Your task to perform on an android device: What is the news today? Image 0: 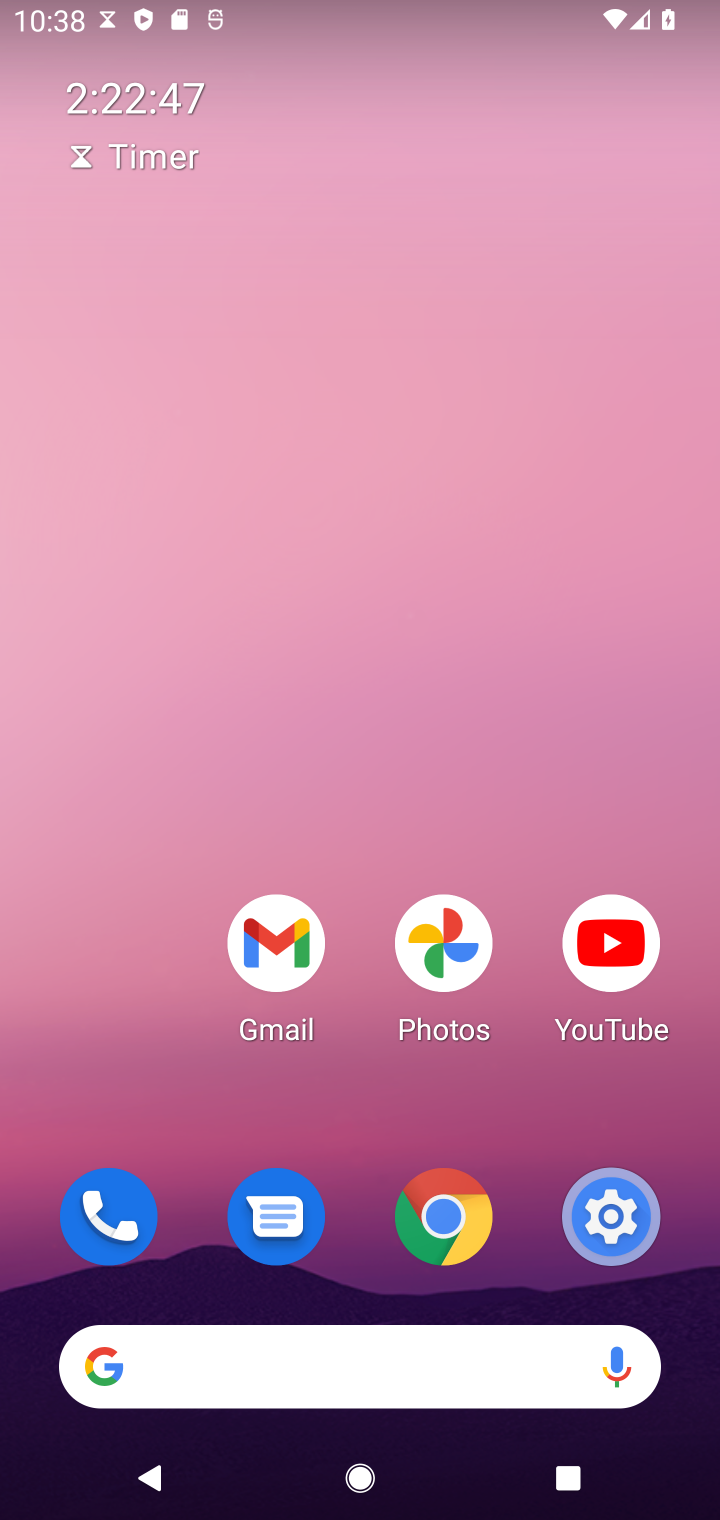
Step 0: click (362, 1364)
Your task to perform on an android device: What is the news today? Image 1: 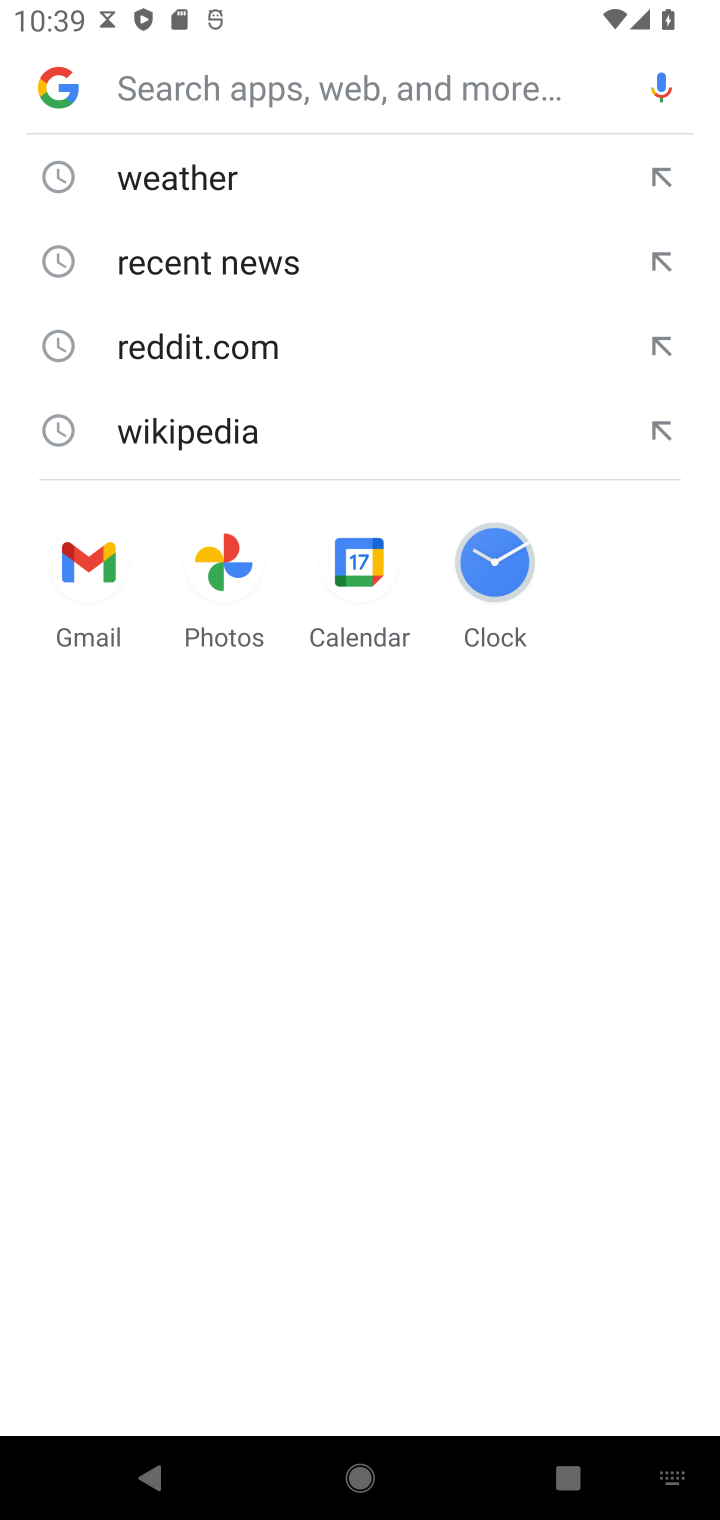
Step 1: click (168, 101)
Your task to perform on an android device: What is the news today? Image 2: 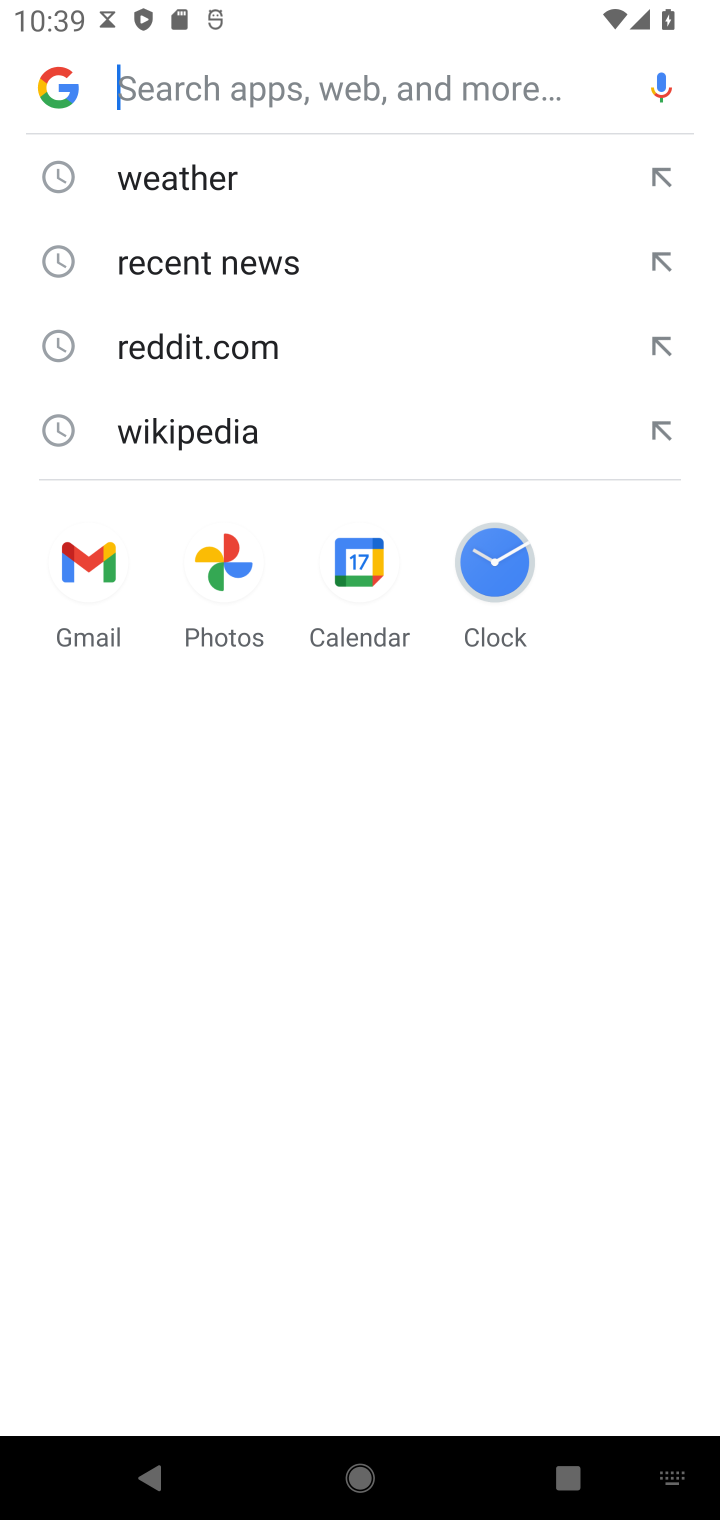
Step 2: type "news today"
Your task to perform on an android device: What is the news today? Image 3: 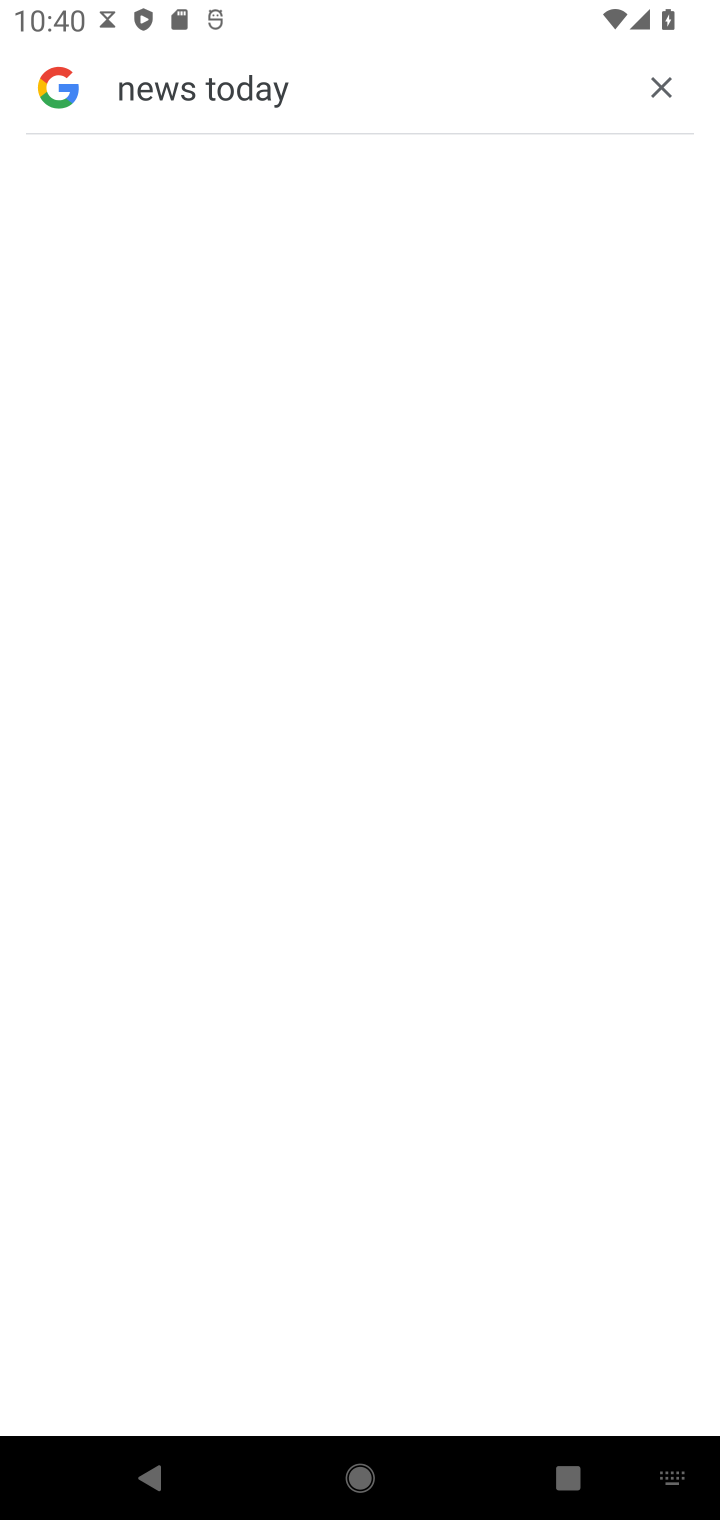
Step 3: click (649, 69)
Your task to perform on an android device: What is the news today? Image 4: 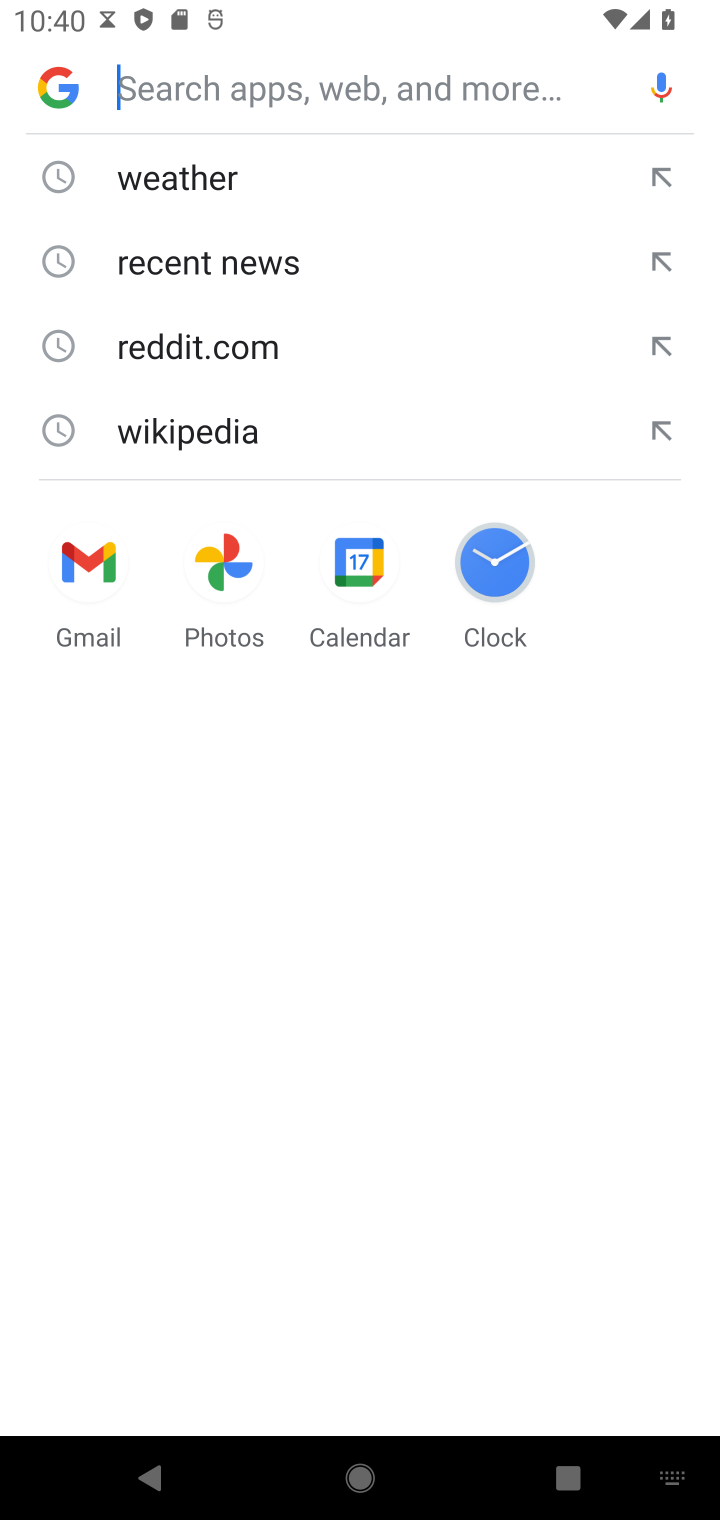
Step 4: click (209, 81)
Your task to perform on an android device: What is the news today? Image 5: 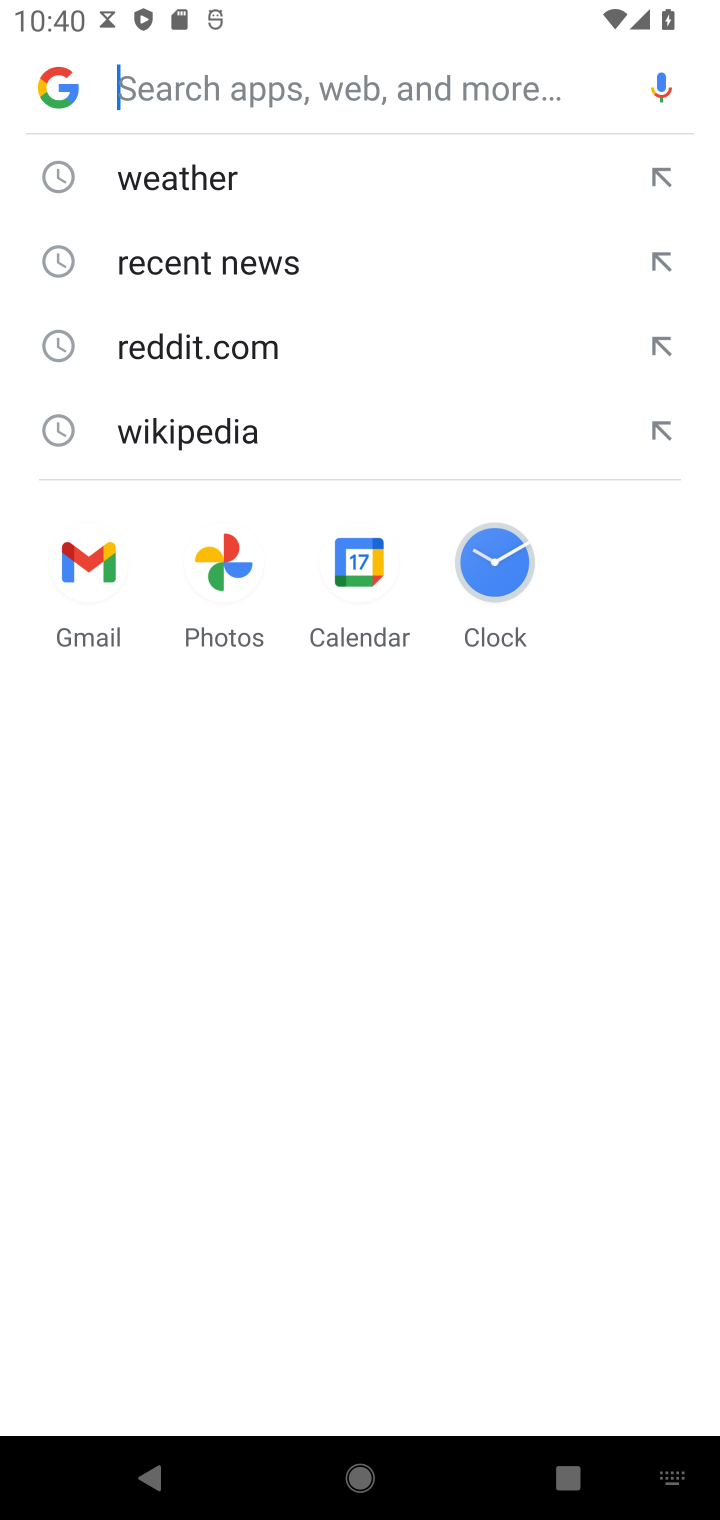
Step 5: type "news"
Your task to perform on an android device: What is the news today? Image 6: 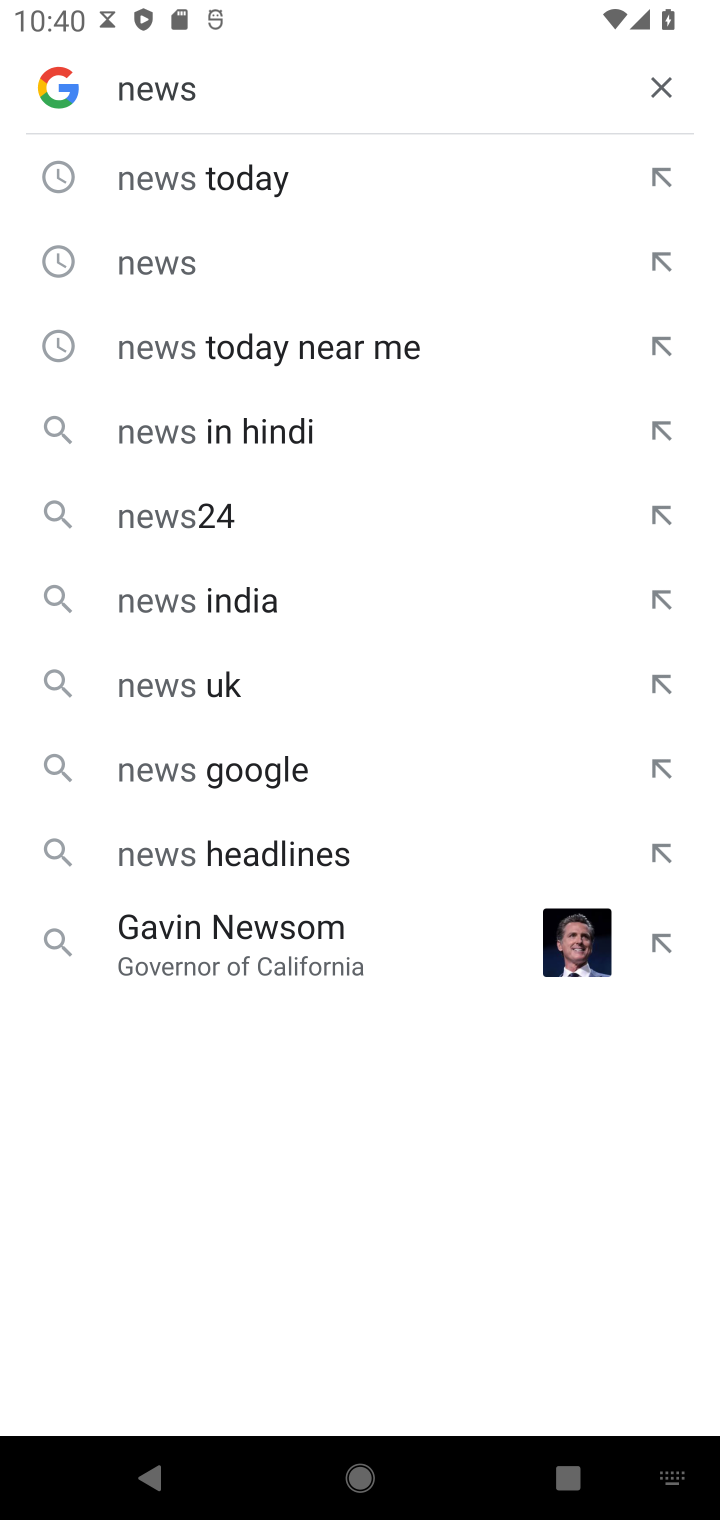
Step 6: click (248, 187)
Your task to perform on an android device: What is the news today? Image 7: 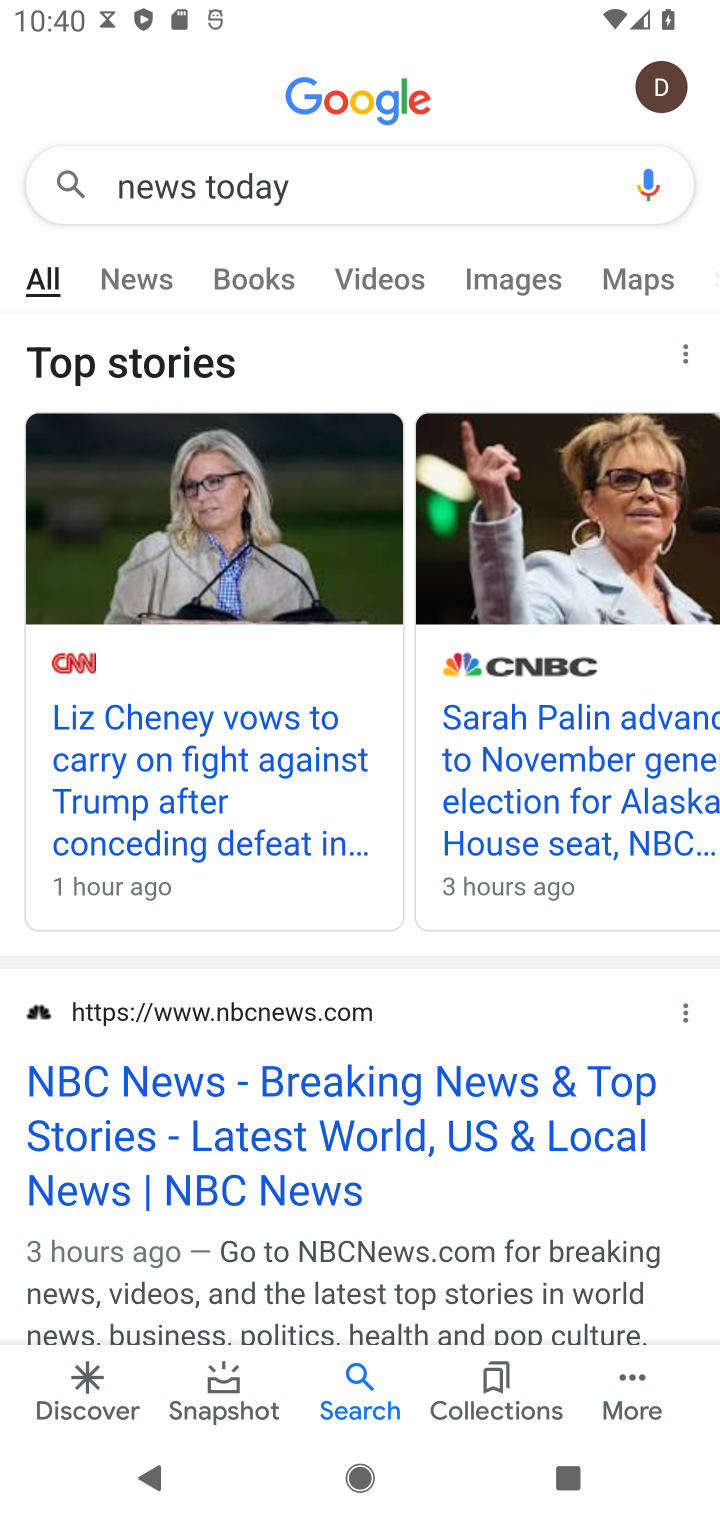
Step 7: task complete